Your task to perform on an android device: Open Youtube and go to "Your channel" Image 0: 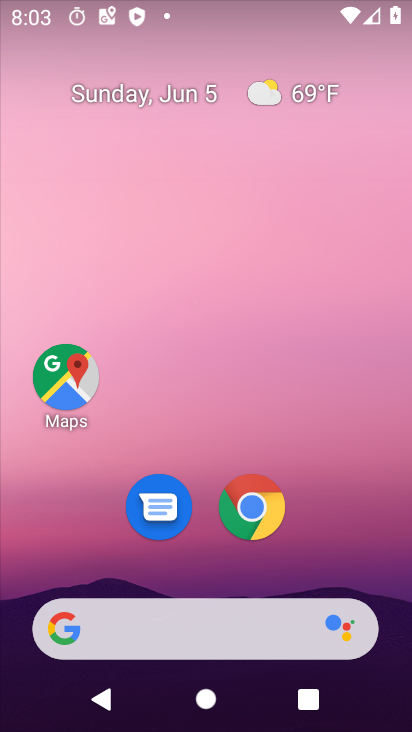
Step 0: drag from (395, 594) to (276, 33)
Your task to perform on an android device: Open Youtube and go to "Your channel" Image 1: 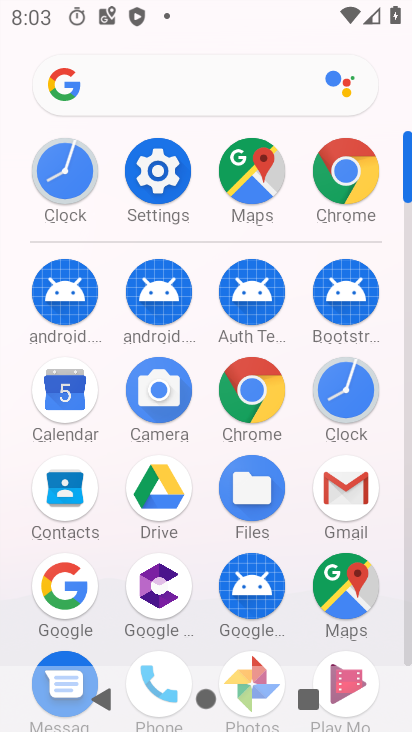
Step 1: drag from (8, 629) to (13, 257)
Your task to perform on an android device: Open Youtube and go to "Your channel" Image 2: 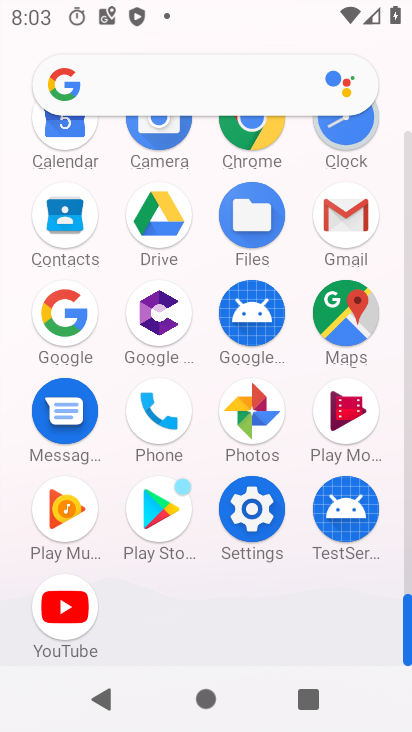
Step 2: click (54, 606)
Your task to perform on an android device: Open Youtube and go to "Your channel" Image 3: 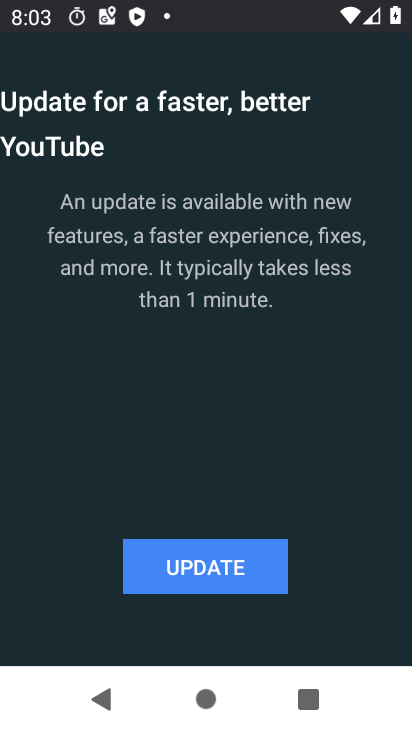
Step 3: click (198, 563)
Your task to perform on an android device: Open Youtube and go to "Your channel" Image 4: 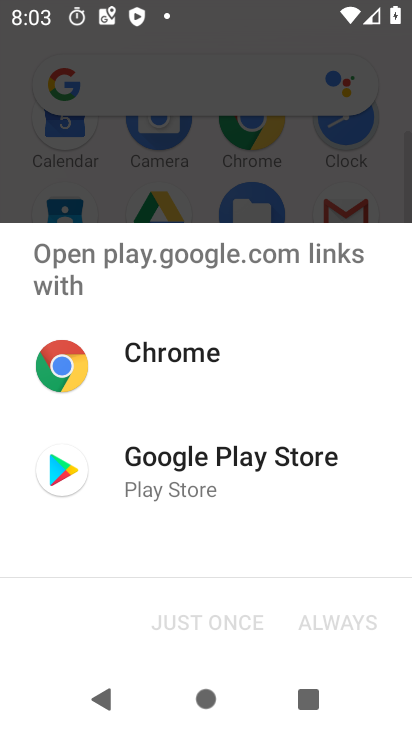
Step 4: click (189, 444)
Your task to perform on an android device: Open Youtube and go to "Your channel" Image 5: 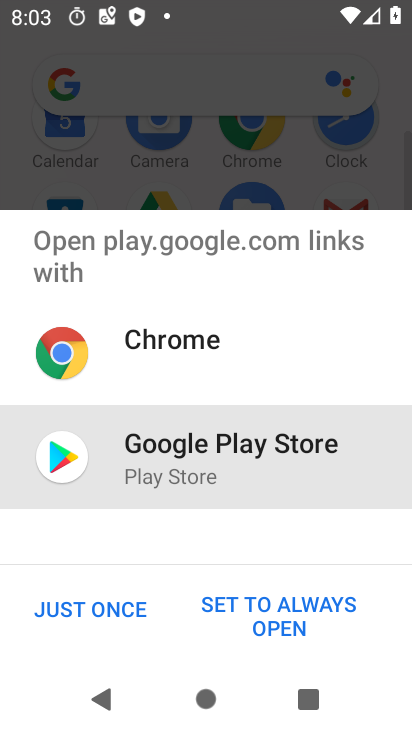
Step 5: click (87, 597)
Your task to perform on an android device: Open Youtube and go to "Your channel" Image 6: 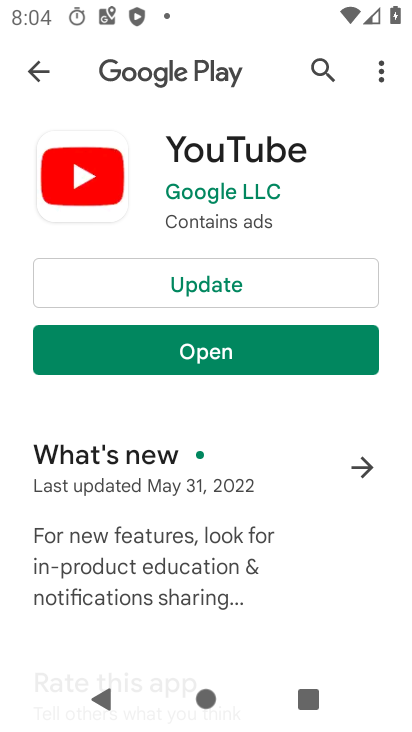
Step 6: click (228, 276)
Your task to perform on an android device: Open Youtube and go to "Your channel" Image 7: 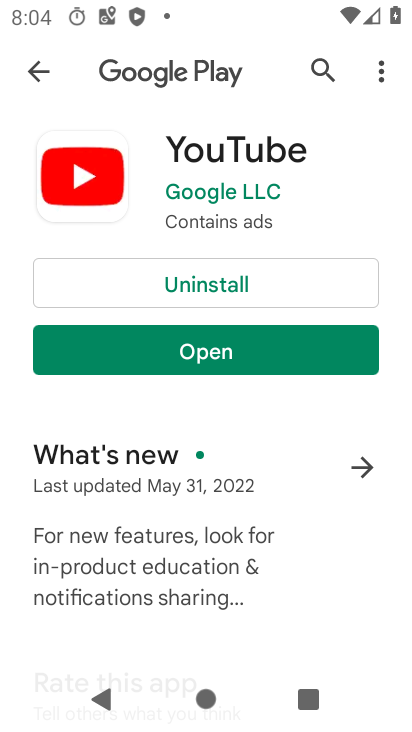
Step 7: click (224, 344)
Your task to perform on an android device: Open Youtube and go to "Your channel" Image 8: 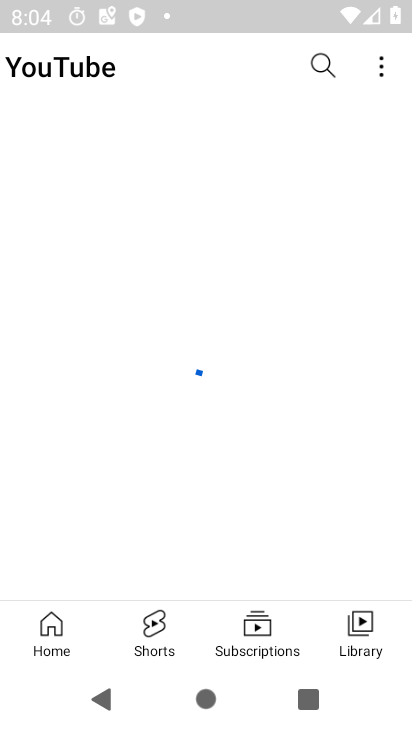
Step 8: click (365, 625)
Your task to perform on an android device: Open Youtube and go to "Your channel" Image 9: 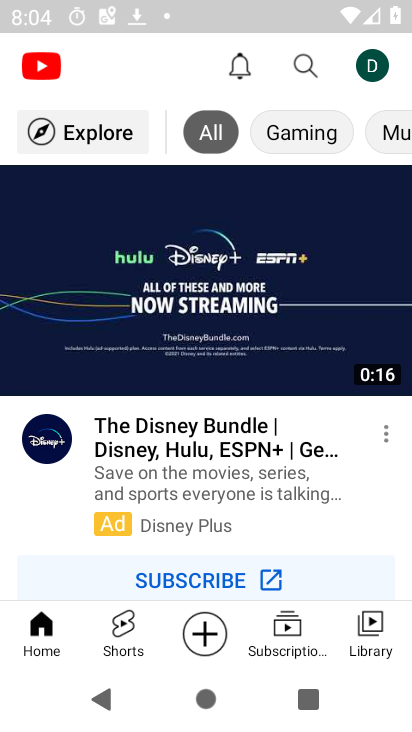
Step 9: click (365, 625)
Your task to perform on an android device: Open Youtube and go to "Your channel" Image 10: 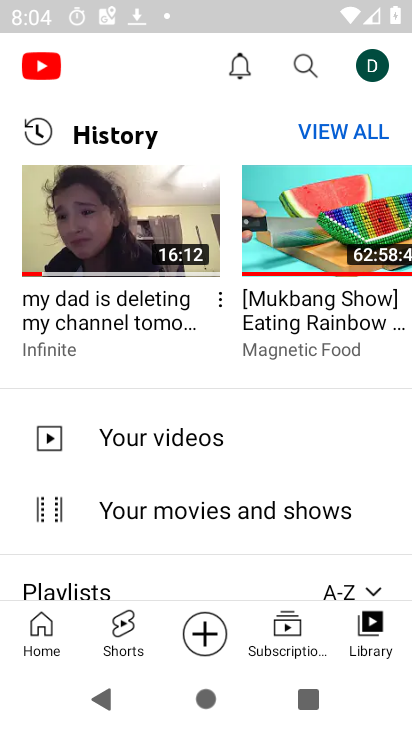
Step 10: click (160, 428)
Your task to perform on an android device: Open Youtube and go to "Your channel" Image 11: 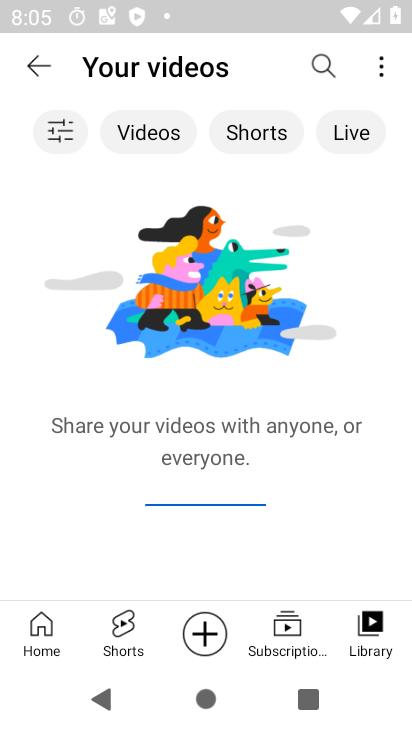
Step 11: task complete